Your task to perform on an android device: Is it going to rain today? Image 0: 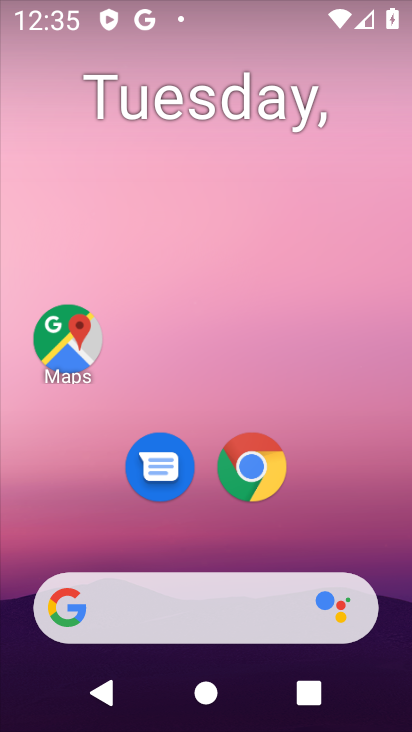
Step 0: click (148, 611)
Your task to perform on an android device: Is it going to rain today? Image 1: 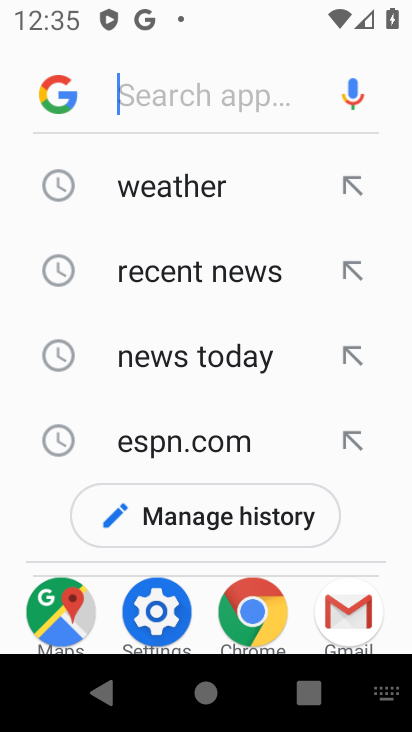
Step 1: click (187, 187)
Your task to perform on an android device: Is it going to rain today? Image 2: 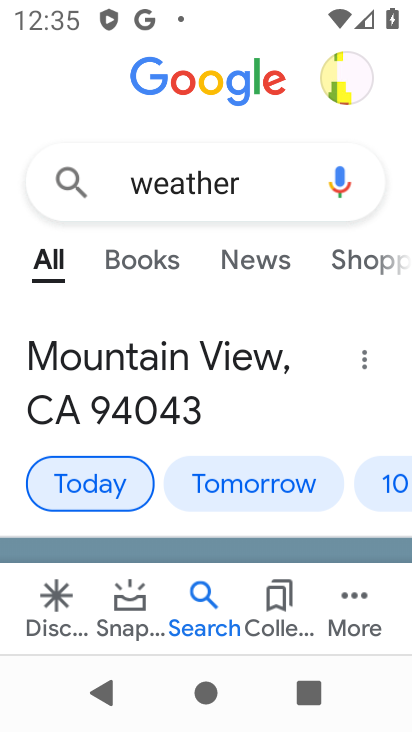
Step 2: task complete